Your task to perform on an android device: Open Maps and search for coffee Image 0: 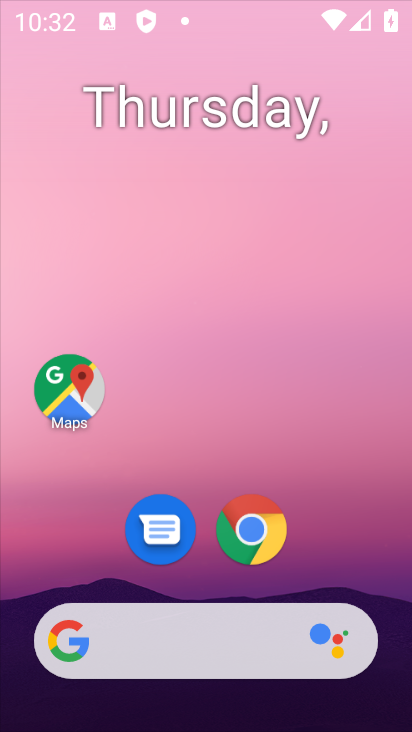
Step 0: click (280, 7)
Your task to perform on an android device: Open Maps and search for coffee Image 1: 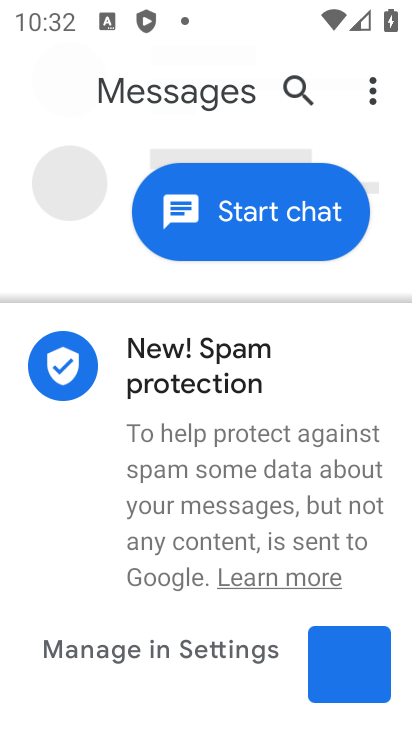
Step 1: press home button
Your task to perform on an android device: Open Maps and search for coffee Image 2: 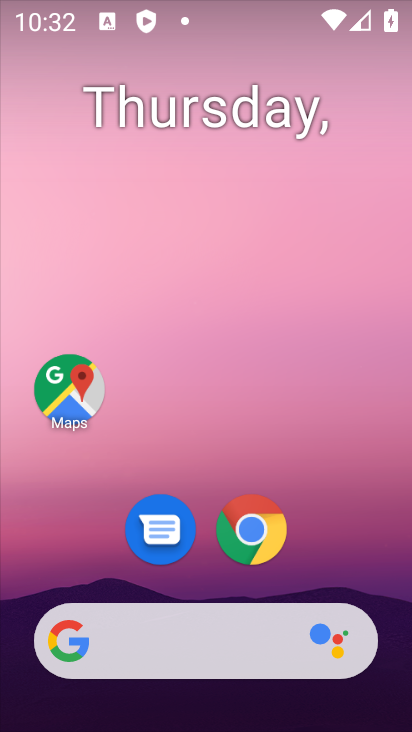
Step 2: drag from (228, 643) to (251, 171)
Your task to perform on an android device: Open Maps and search for coffee Image 3: 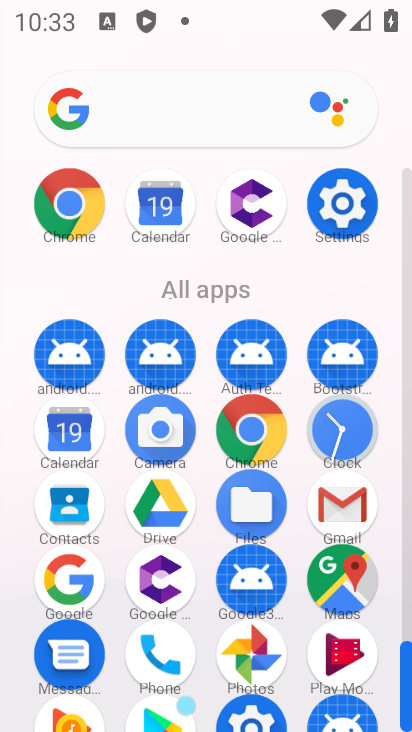
Step 3: drag from (255, 513) to (293, 219)
Your task to perform on an android device: Open Maps and search for coffee Image 4: 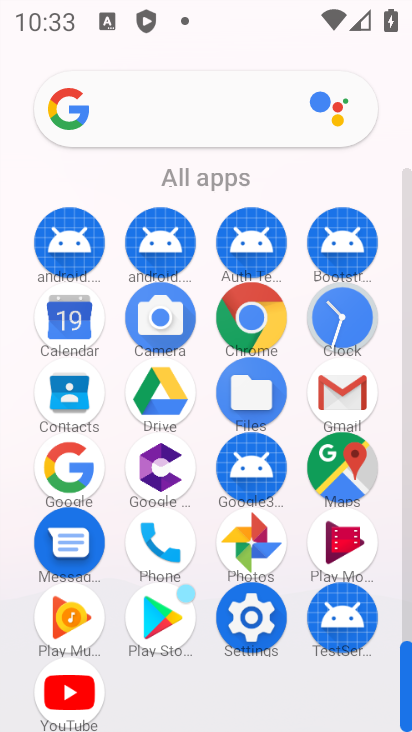
Step 4: click (353, 477)
Your task to perform on an android device: Open Maps and search for coffee Image 5: 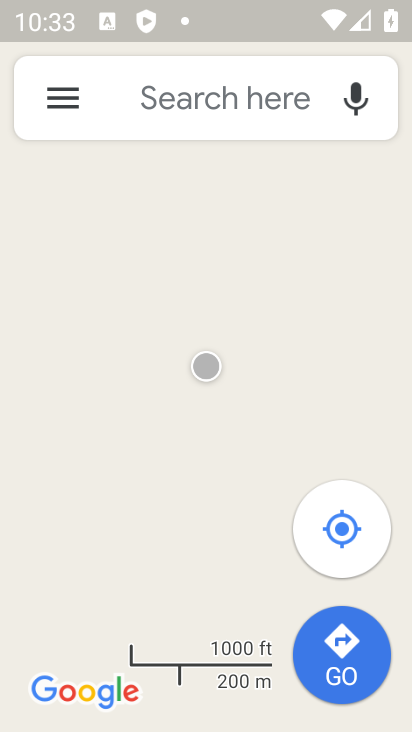
Step 5: click (229, 117)
Your task to perform on an android device: Open Maps and search for coffee Image 6: 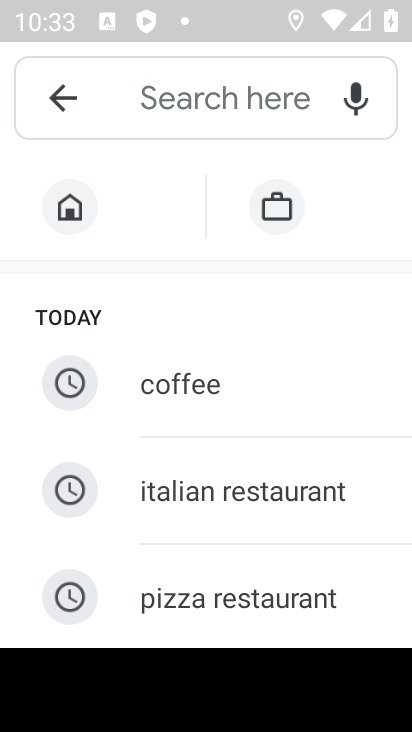
Step 6: click (252, 403)
Your task to perform on an android device: Open Maps and search for coffee Image 7: 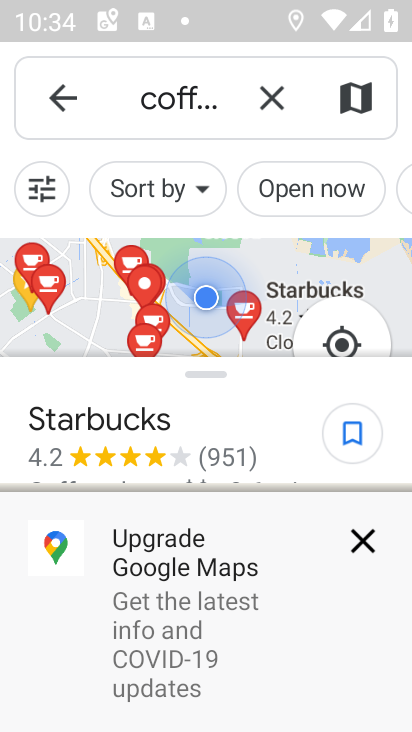
Step 7: task complete